Your task to perform on an android device: When is my next appointment? Image 0: 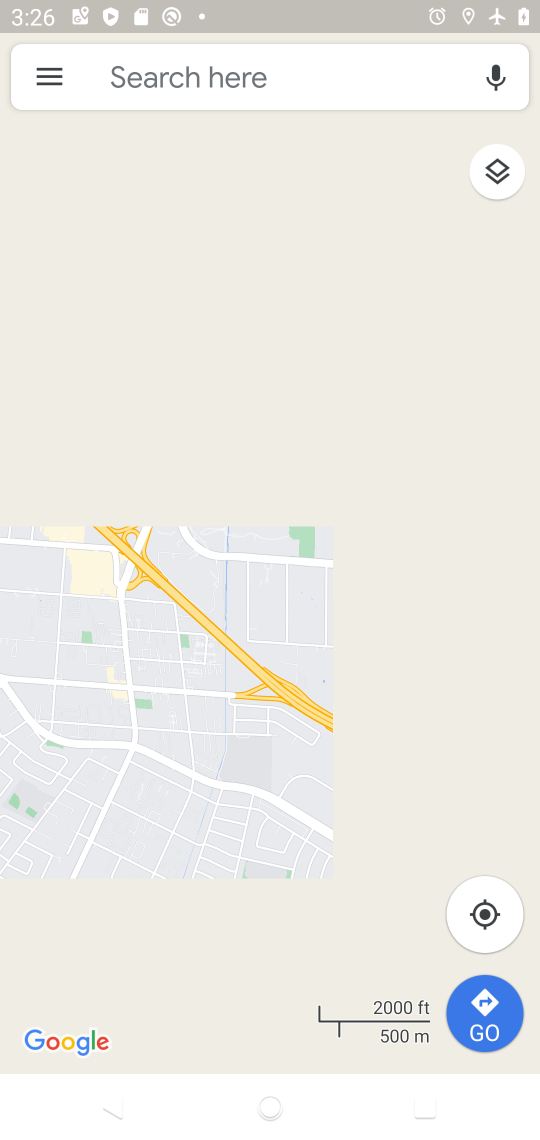
Step 0: press back button
Your task to perform on an android device: When is my next appointment? Image 1: 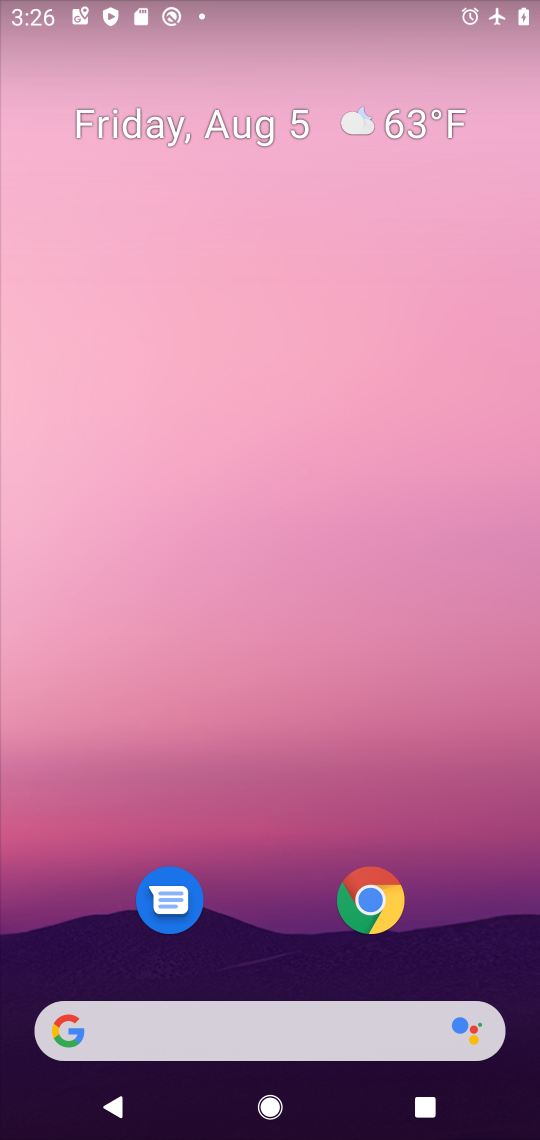
Step 1: drag from (278, 805) to (316, 90)
Your task to perform on an android device: When is my next appointment? Image 2: 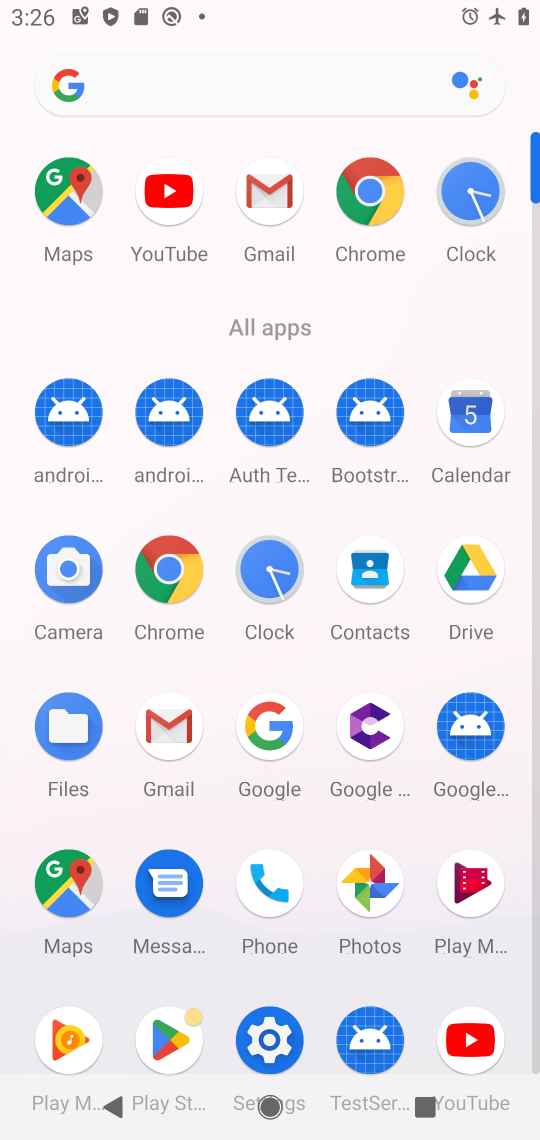
Step 2: click (468, 435)
Your task to perform on an android device: When is my next appointment? Image 3: 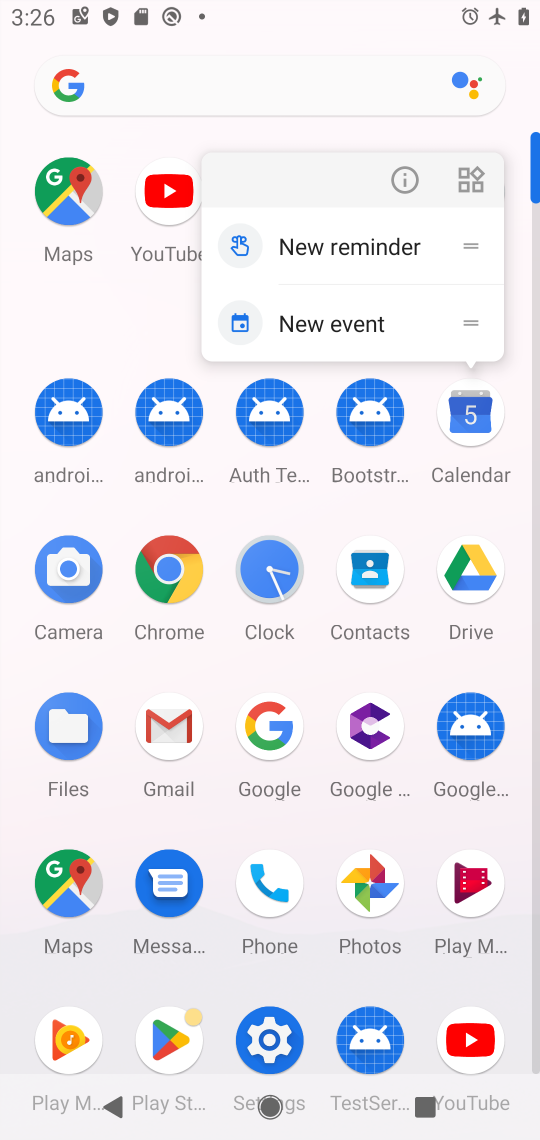
Step 3: click (463, 412)
Your task to perform on an android device: When is my next appointment? Image 4: 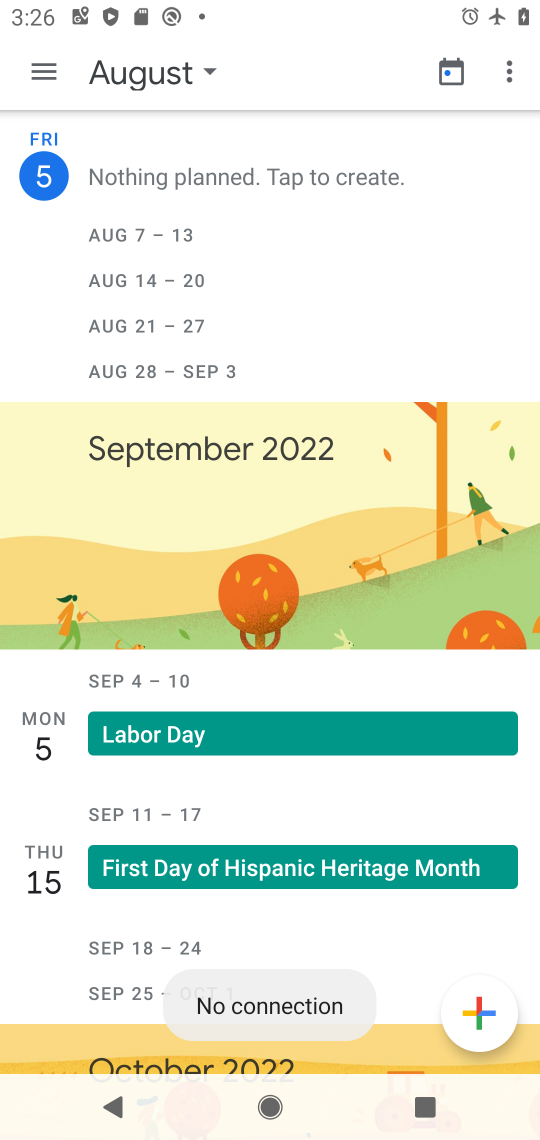
Step 4: click (461, 417)
Your task to perform on an android device: When is my next appointment? Image 5: 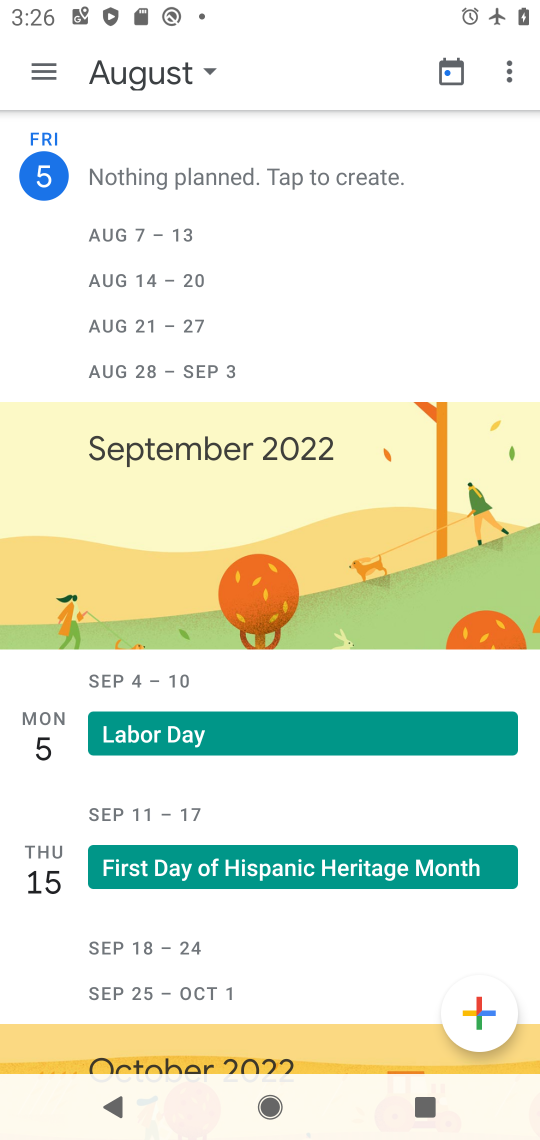
Step 5: task complete